Your task to perform on an android device: Search for Mexican restaurants on Maps Image 0: 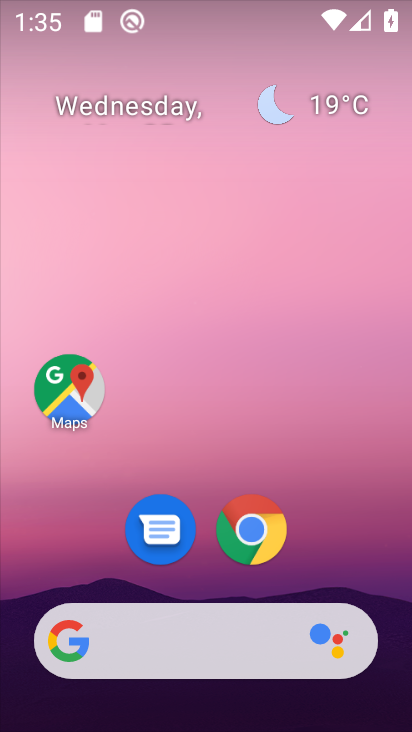
Step 0: click (57, 385)
Your task to perform on an android device: Search for Mexican restaurants on Maps Image 1: 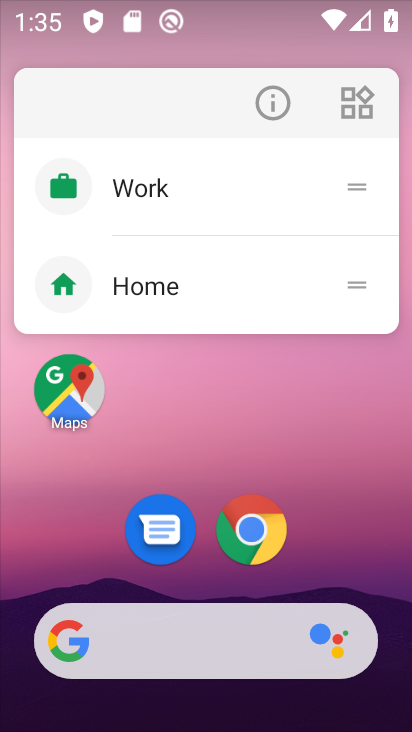
Step 1: click (104, 387)
Your task to perform on an android device: Search for Mexican restaurants on Maps Image 2: 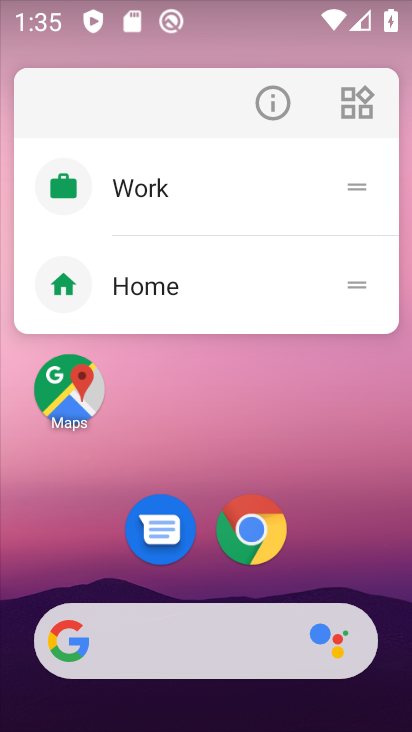
Step 2: click (100, 391)
Your task to perform on an android device: Search for Mexican restaurants on Maps Image 3: 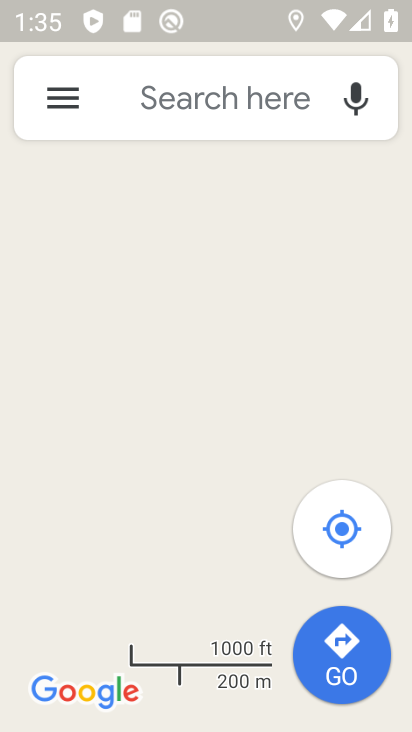
Step 3: click (221, 104)
Your task to perform on an android device: Search for Mexican restaurants on Maps Image 4: 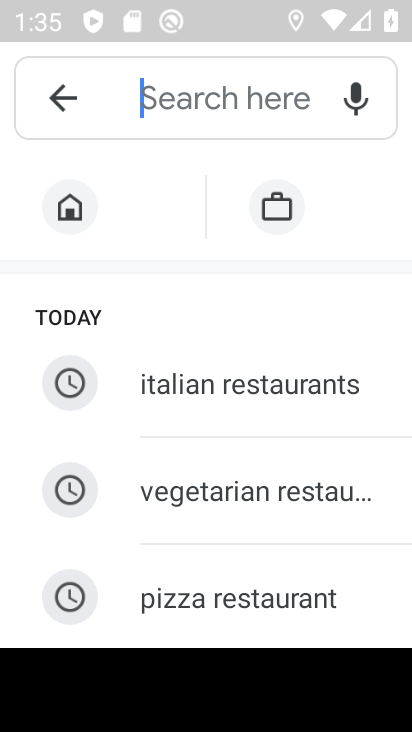
Step 4: type "Mexican restaurants"
Your task to perform on an android device: Search for Mexican restaurants on Maps Image 5: 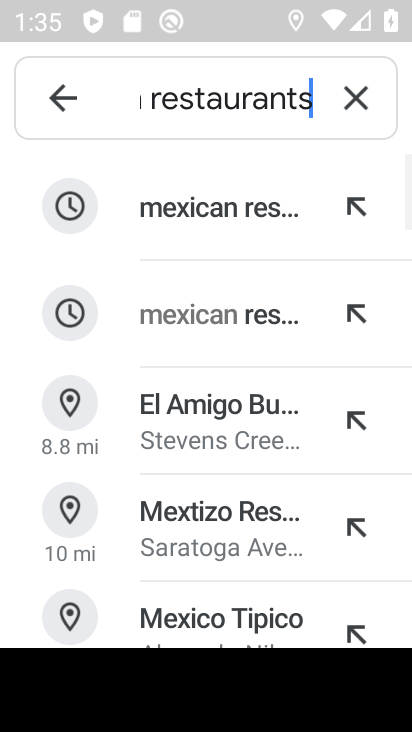
Step 5: click (236, 221)
Your task to perform on an android device: Search for Mexican restaurants on Maps Image 6: 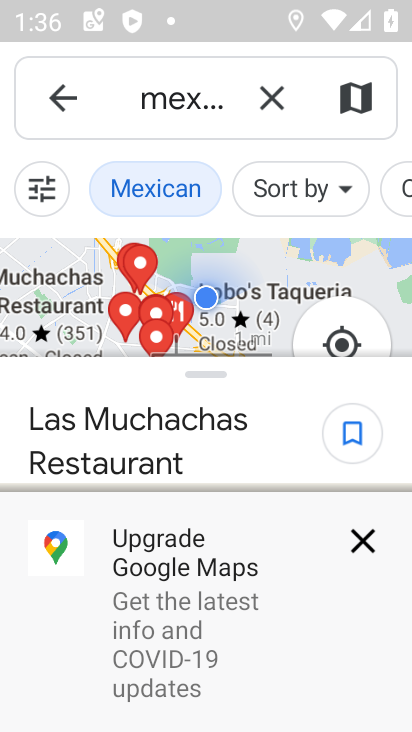
Step 6: click (383, 539)
Your task to perform on an android device: Search for Mexican restaurants on Maps Image 7: 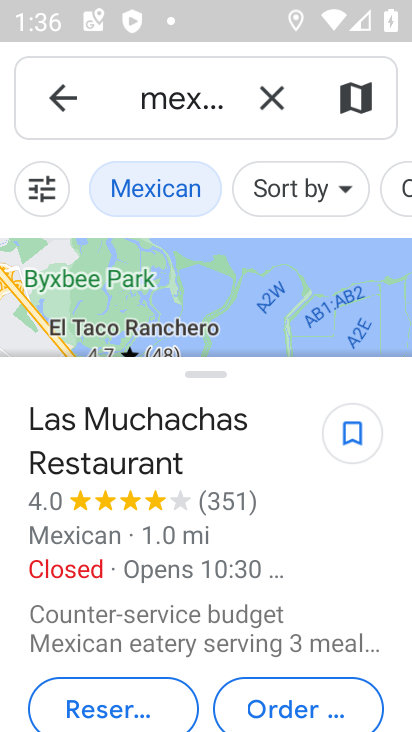
Step 7: task complete